Your task to perform on an android device: Open Android settings Image 0: 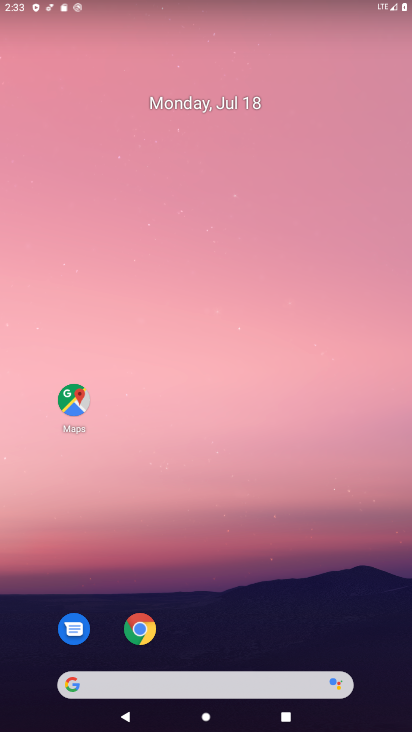
Step 0: drag from (193, 644) to (200, 301)
Your task to perform on an android device: Open Android settings Image 1: 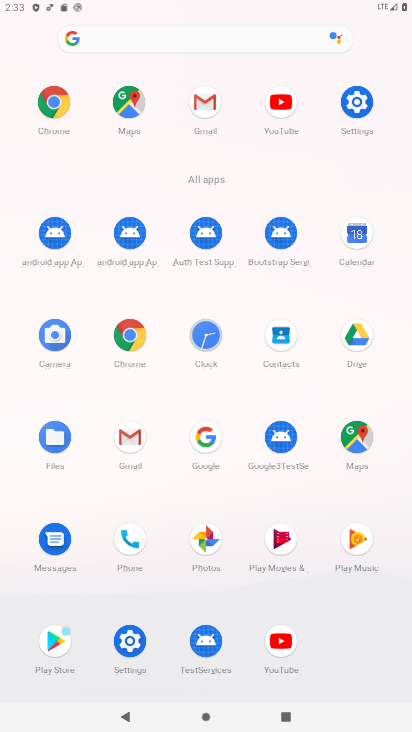
Step 1: click (360, 105)
Your task to perform on an android device: Open Android settings Image 2: 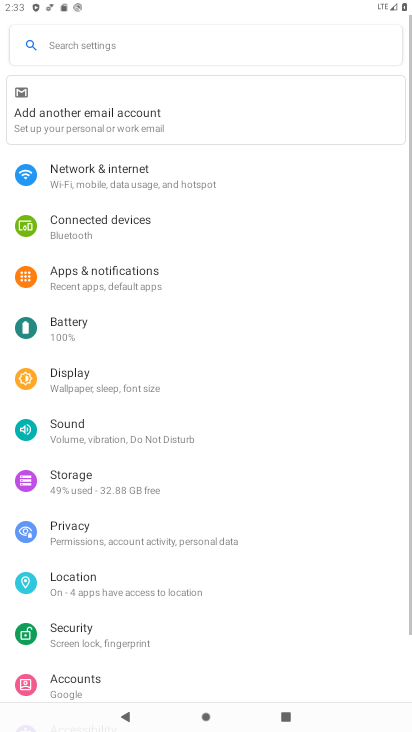
Step 2: task complete